Your task to perform on an android device: Open wifi settings Image 0: 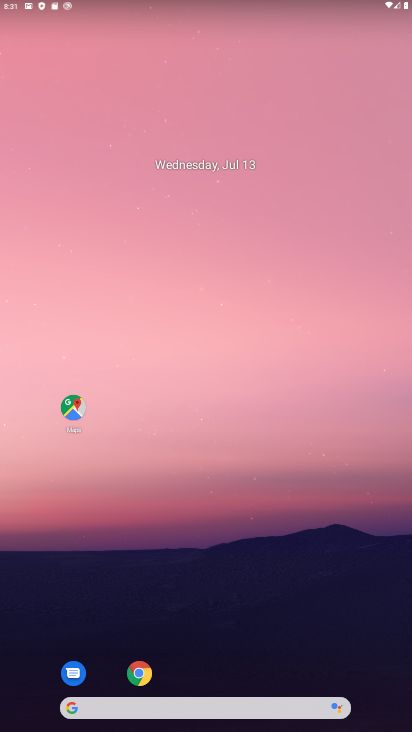
Step 0: drag from (211, 694) to (255, 293)
Your task to perform on an android device: Open wifi settings Image 1: 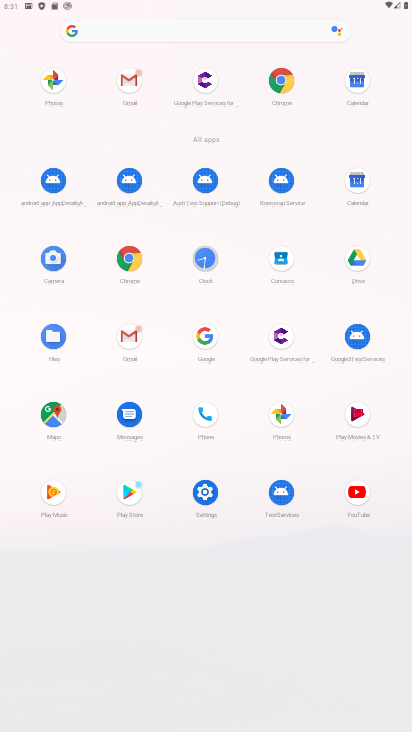
Step 1: click (205, 493)
Your task to perform on an android device: Open wifi settings Image 2: 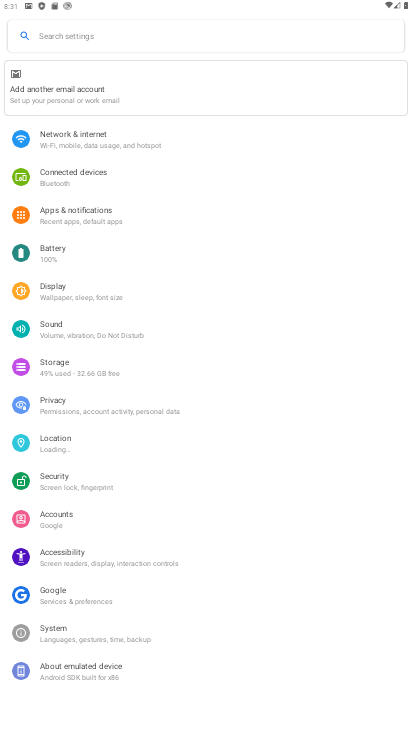
Step 2: click (97, 141)
Your task to perform on an android device: Open wifi settings Image 3: 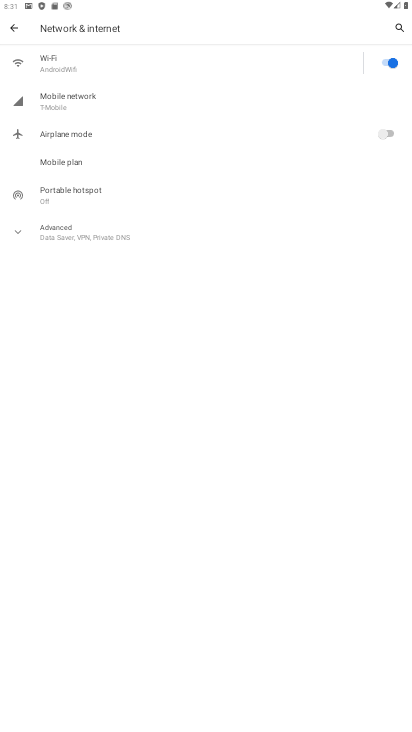
Step 3: click (73, 62)
Your task to perform on an android device: Open wifi settings Image 4: 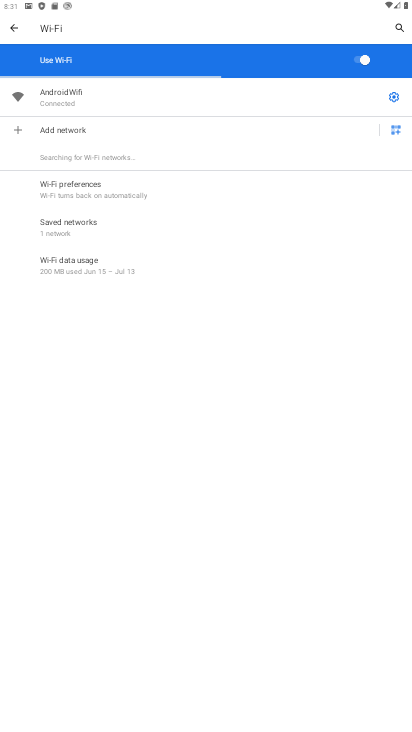
Step 4: click (389, 96)
Your task to perform on an android device: Open wifi settings Image 5: 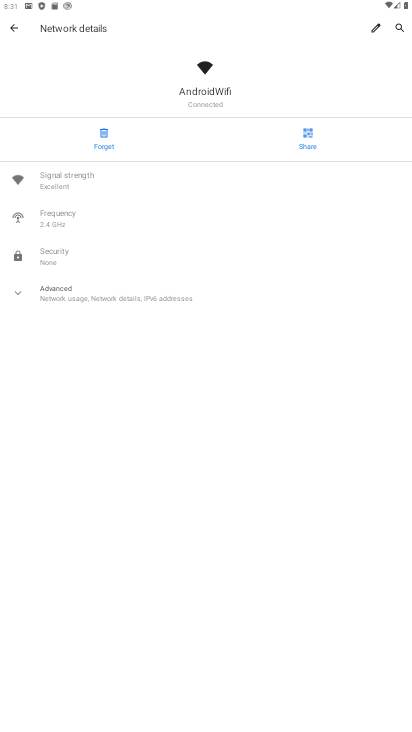
Step 5: click (93, 292)
Your task to perform on an android device: Open wifi settings Image 6: 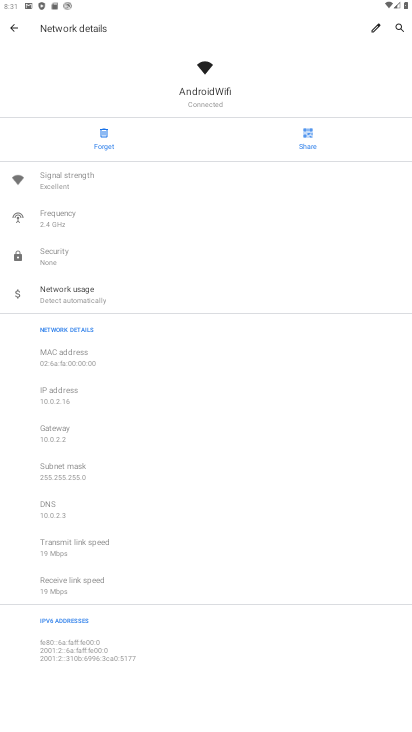
Step 6: task complete